Your task to perform on an android device: turn on bluetooth scan Image 0: 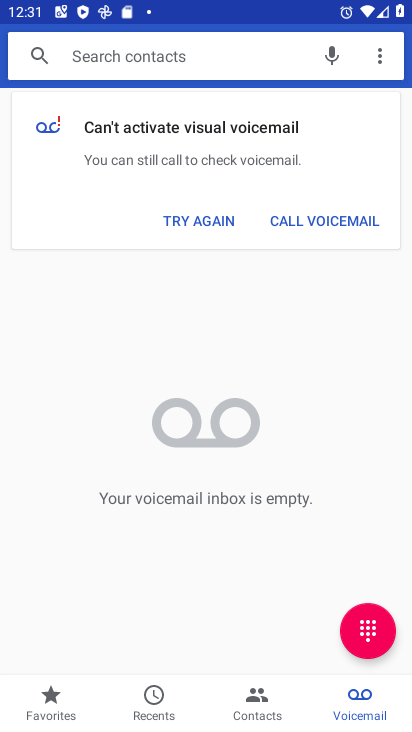
Step 0: press home button
Your task to perform on an android device: turn on bluetooth scan Image 1: 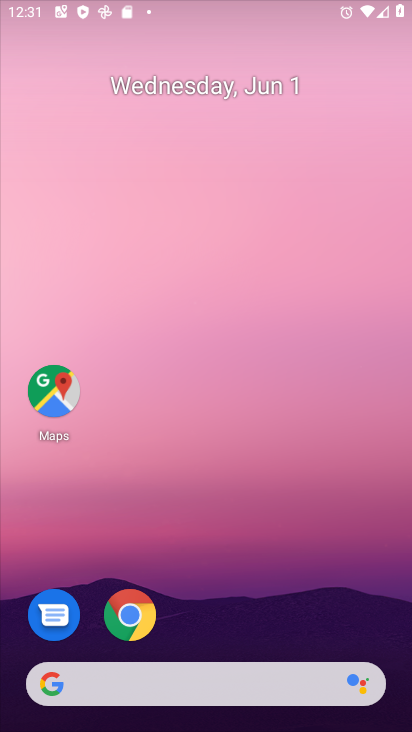
Step 1: drag from (295, 613) to (327, 32)
Your task to perform on an android device: turn on bluetooth scan Image 2: 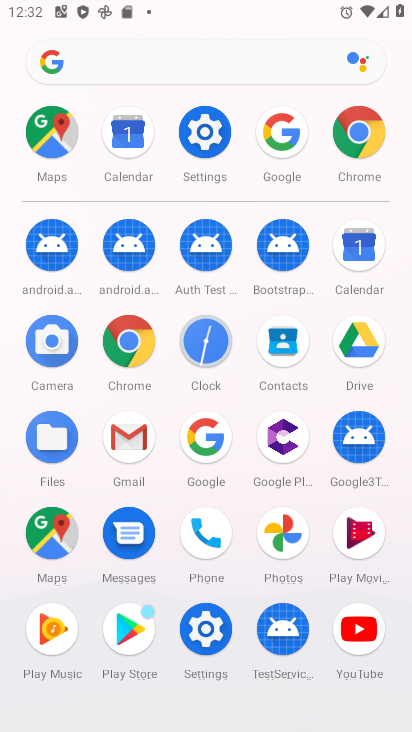
Step 2: click (206, 117)
Your task to perform on an android device: turn on bluetooth scan Image 3: 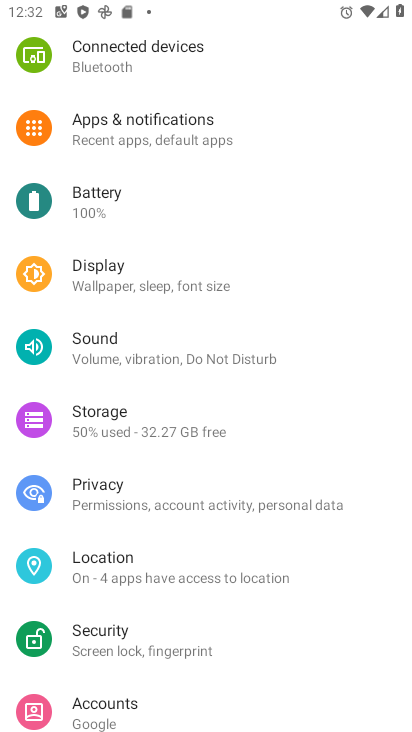
Step 3: click (117, 567)
Your task to perform on an android device: turn on bluetooth scan Image 4: 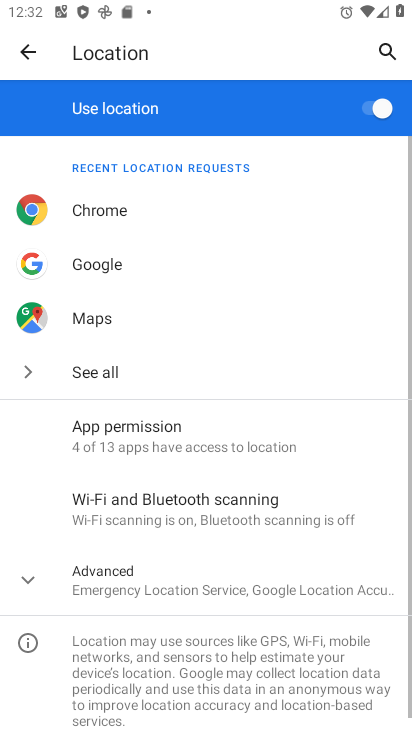
Step 4: click (157, 487)
Your task to perform on an android device: turn on bluetooth scan Image 5: 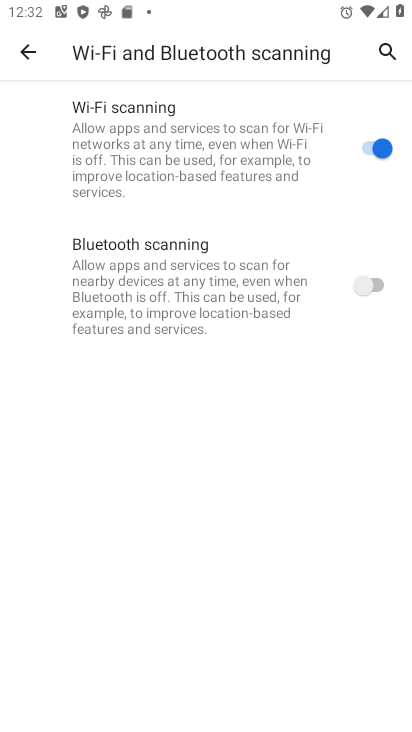
Step 5: click (362, 298)
Your task to perform on an android device: turn on bluetooth scan Image 6: 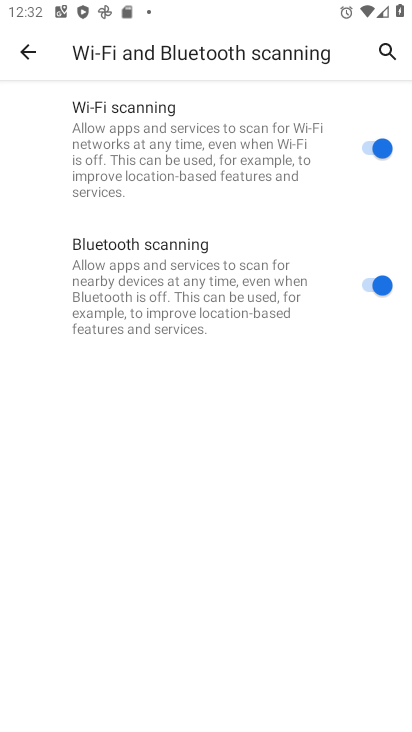
Step 6: task complete